Your task to perform on an android device: Go to notification settings Image 0: 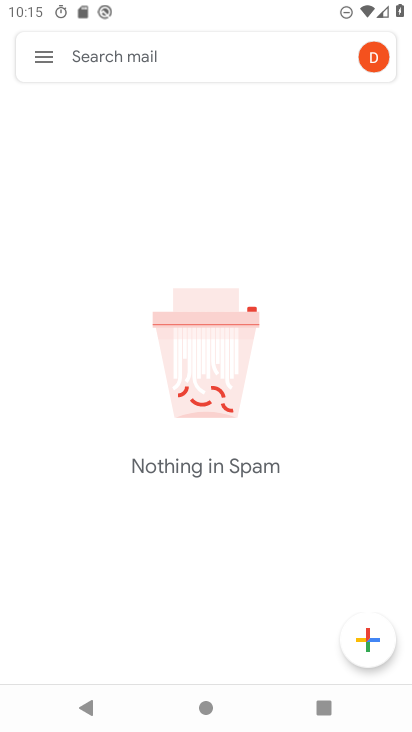
Step 0: press home button
Your task to perform on an android device: Go to notification settings Image 1: 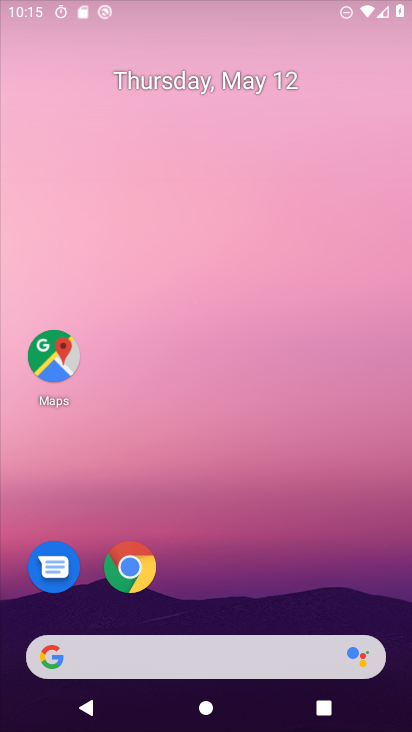
Step 1: drag from (281, 617) to (347, 163)
Your task to perform on an android device: Go to notification settings Image 2: 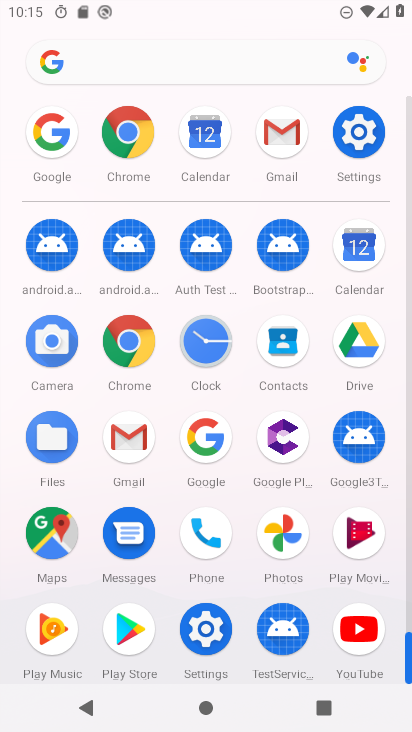
Step 2: click (358, 137)
Your task to perform on an android device: Go to notification settings Image 3: 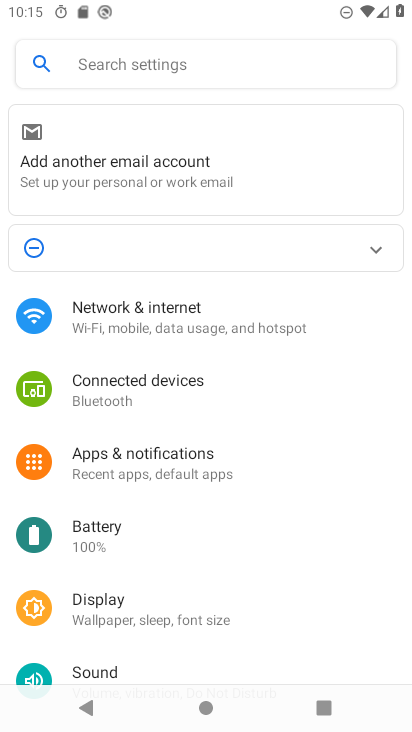
Step 3: click (175, 476)
Your task to perform on an android device: Go to notification settings Image 4: 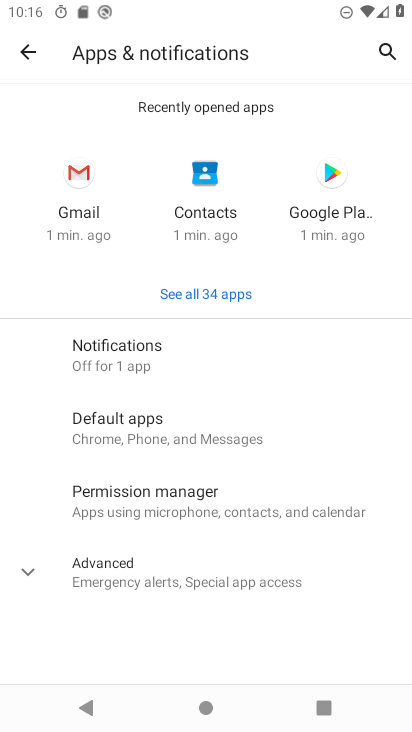
Step 4: click (141, 361)
Your task to perform on an android device: Go to notification settings Image 5: 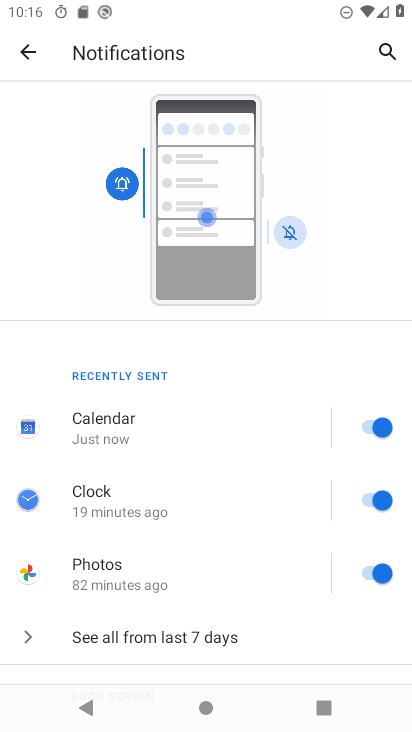
Step 5: task complete